Your task to perform on an android device: Open maps Image 0: 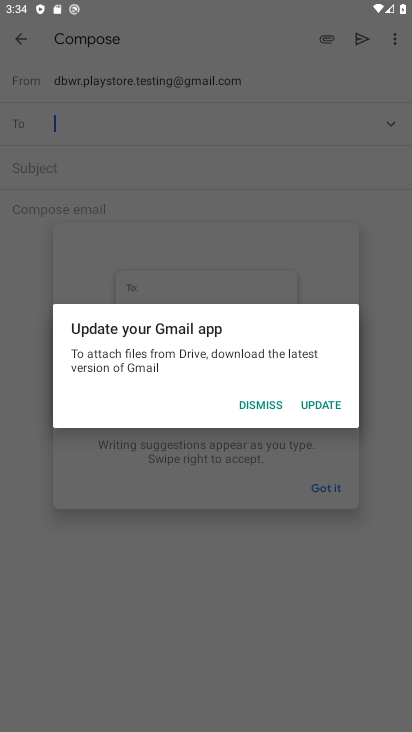
Step 0: press home button
Your task to perform on an android device: Open maps Image 1: 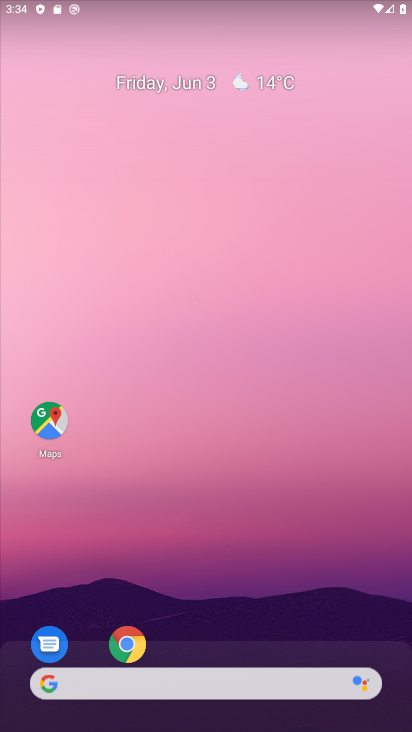
Step 1: click (51, 432)
Your task to perform on an android device: Open maps Image 2: 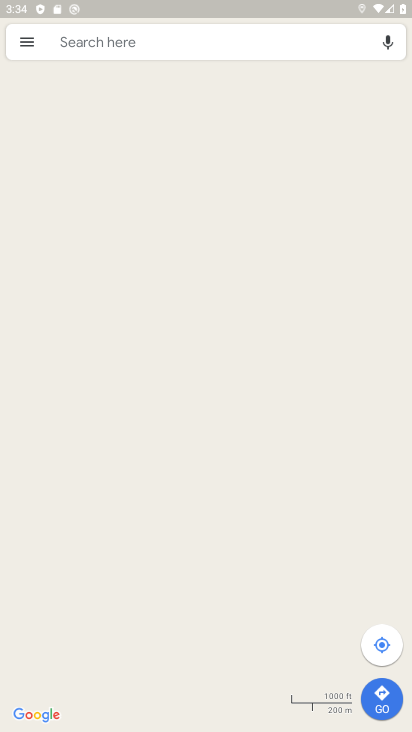
Step 2: click (51, 432)
Your task to perform on an android device: Open maps Image 3: 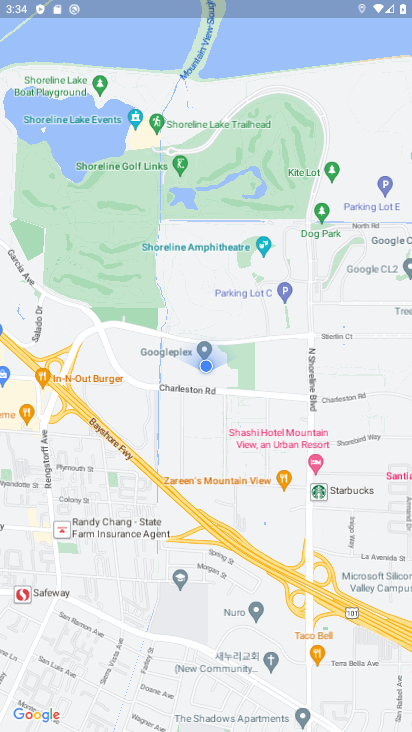
Step 3: task complete